Your task to perform on an android device: Empty the shopping cart on amazon. Add logitech g903 to the cart on amazon, then select checkout. Image 0: 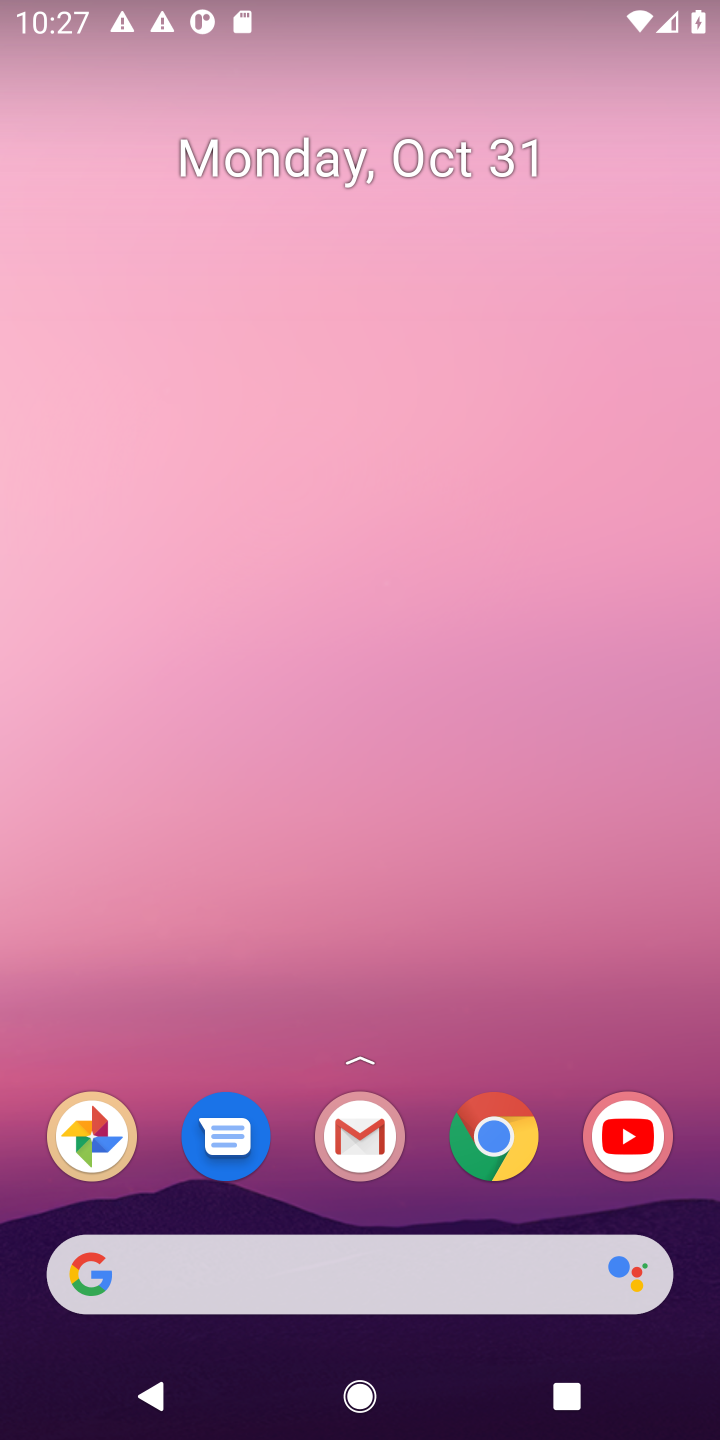
Step 0: press home button
Your task to perform on an android device: Empty the shopping cart on amazon. Add logitech g903 to the cart on amazon, then select checkout. Image 1: 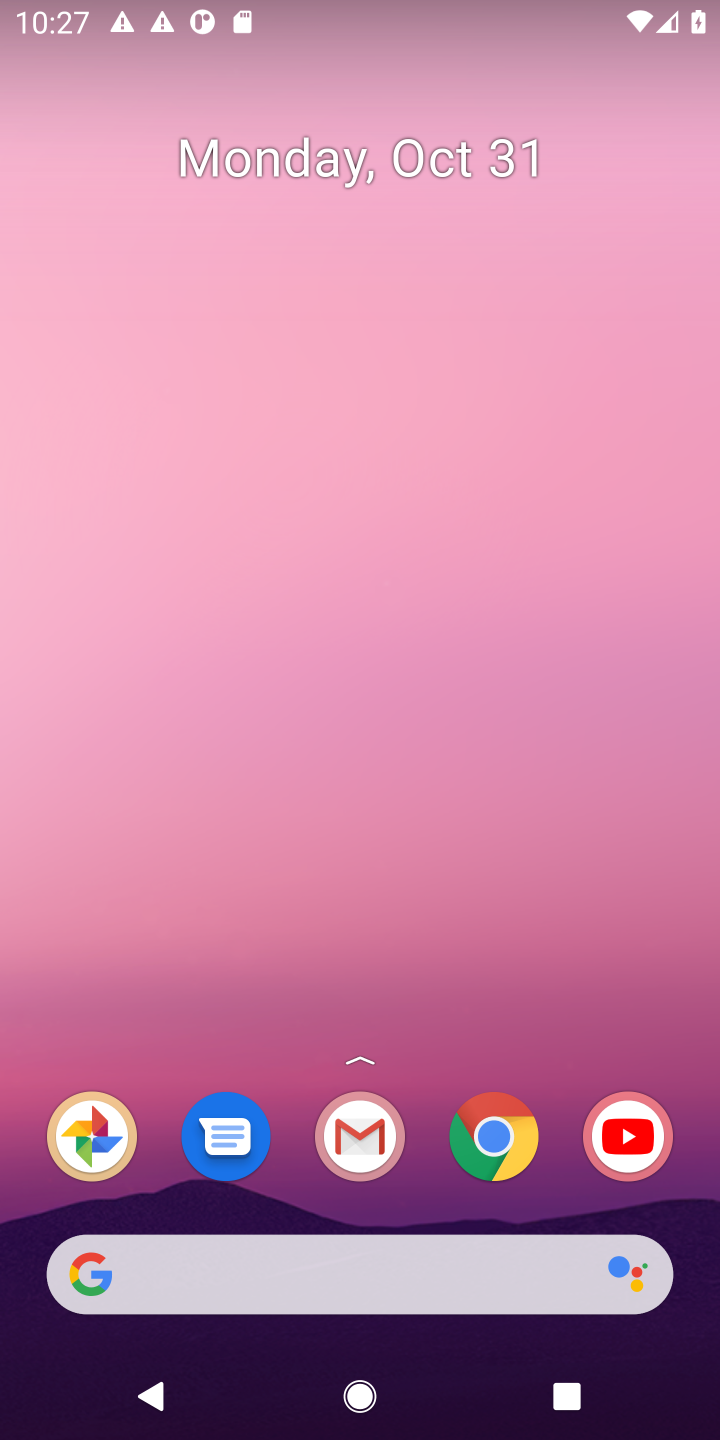
Step 1: click (146, 1273)
Your task to perform on an android device: Empty the shopping cart on amazon. Add logitech g903 to the cart on amazon, then select checkout. Image 2: 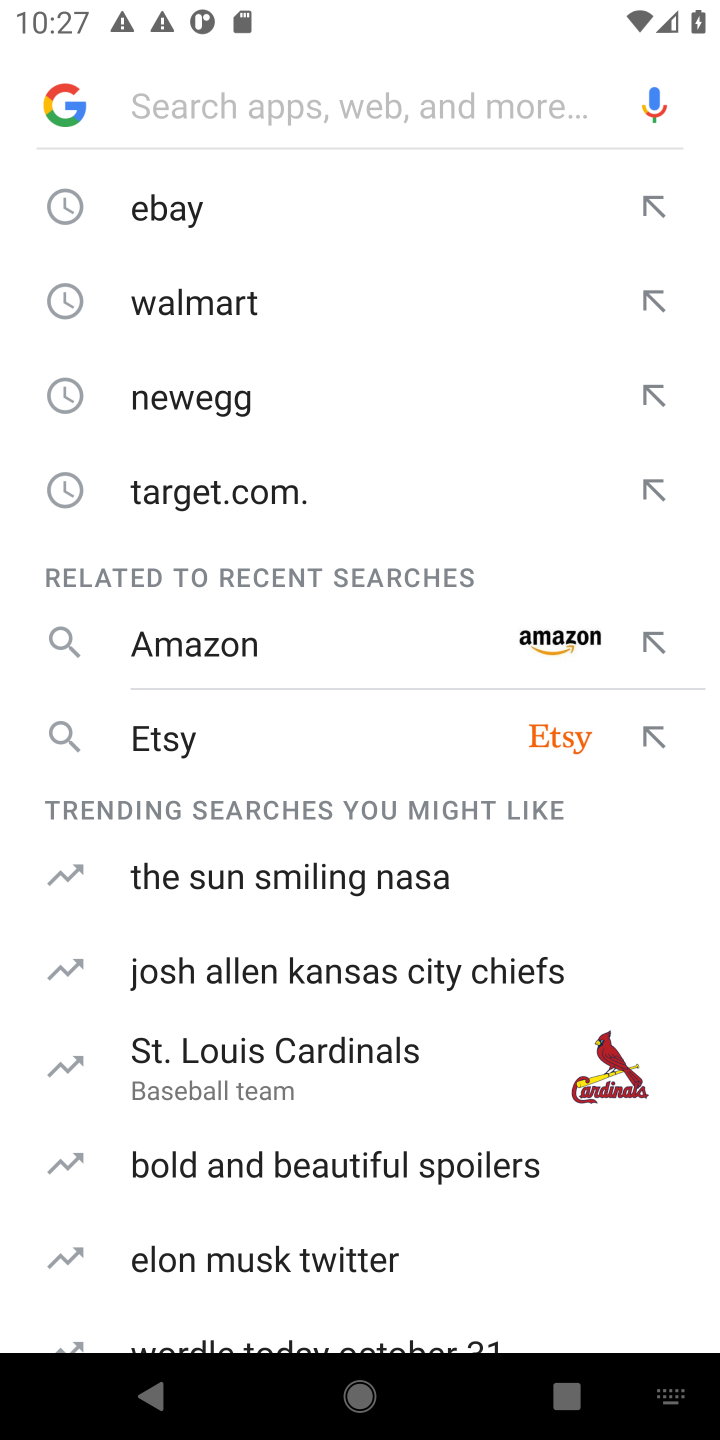
Step 2: type " amazon"
Your task to perform on an android device: Empty the shopping cart on amazon. Add logitech g903 to the cart on amazon, then select checkout. Image 3: 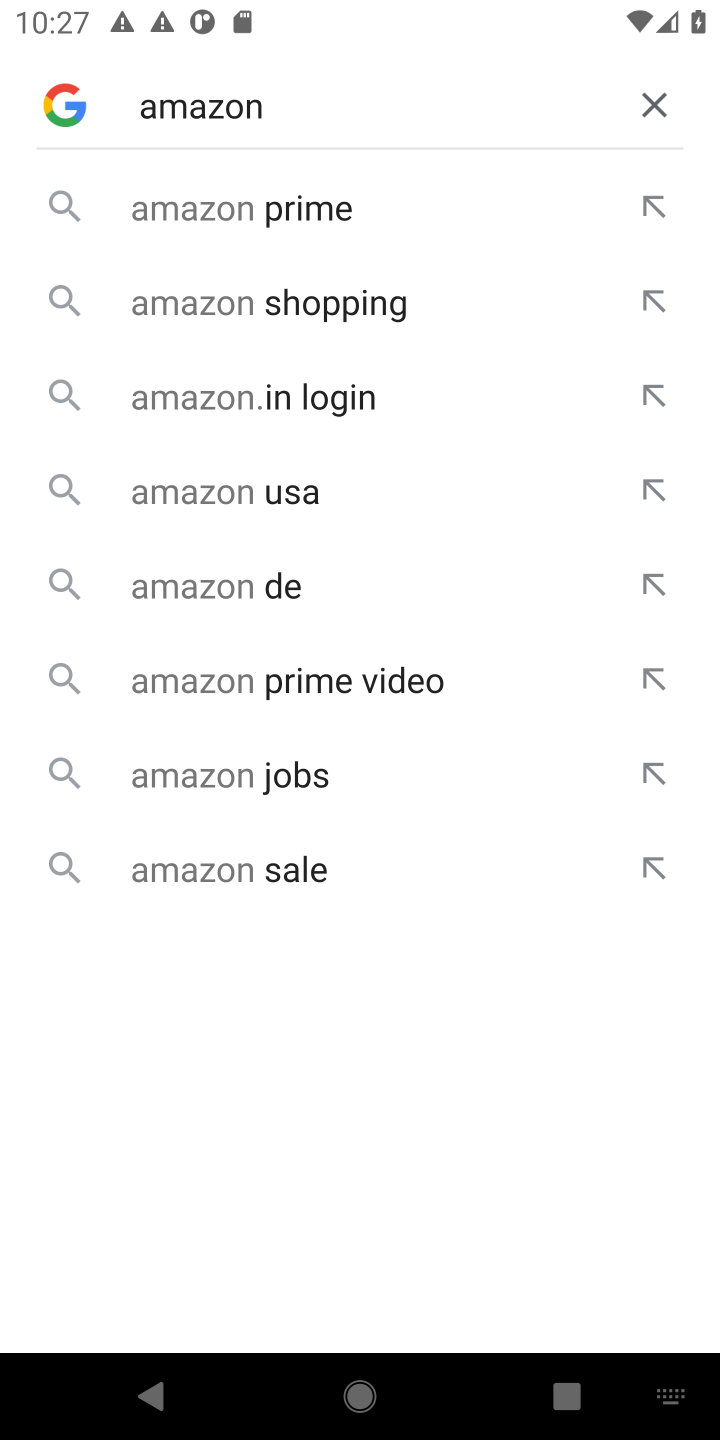
Step 3: press enter
Your task to perform on an android device: Empty the shopping cart on amazon. Add logitech g903 to the cart on amazon, then select checkout. Image 4: 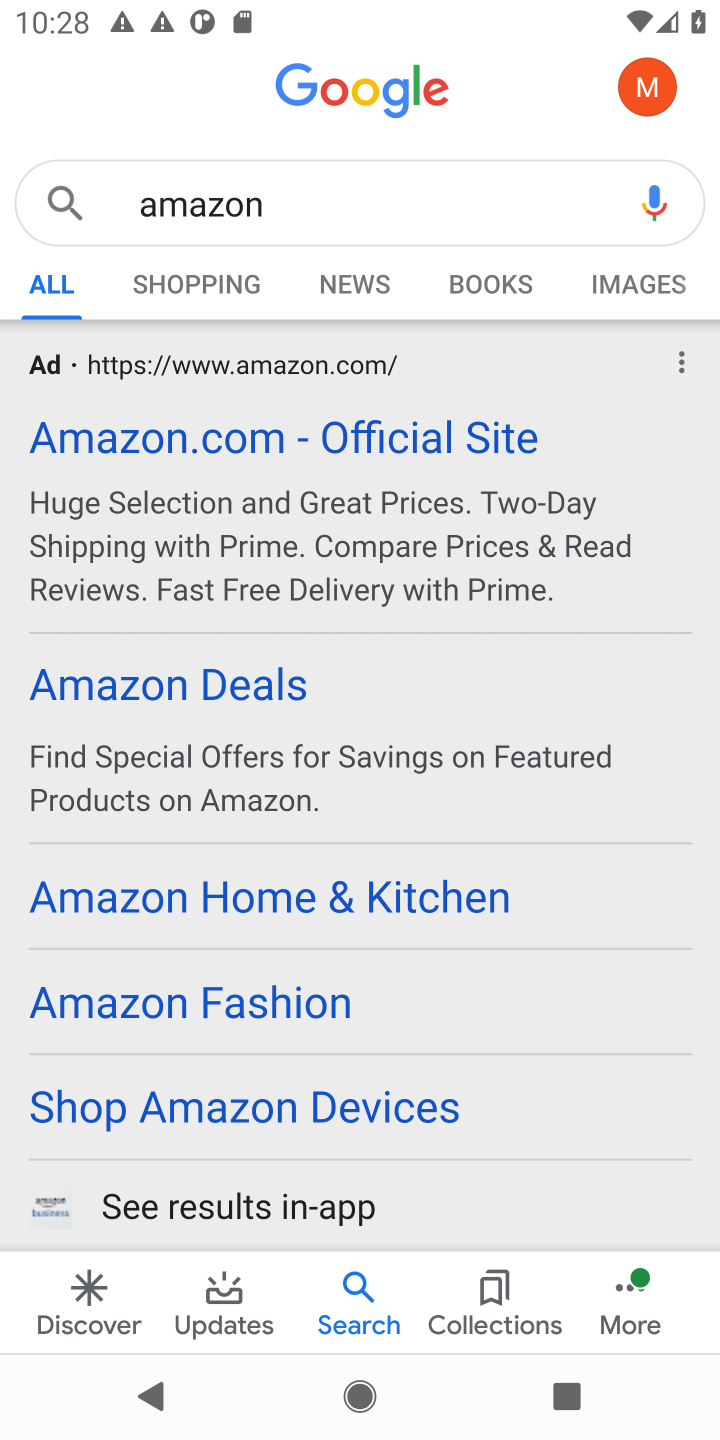
Step 4: click (266, 436)
Your task to perform on an android device: Empty the shopping cart on amazon. Add logitech g903 to the cart on amazon, then select checkout. Image 5: 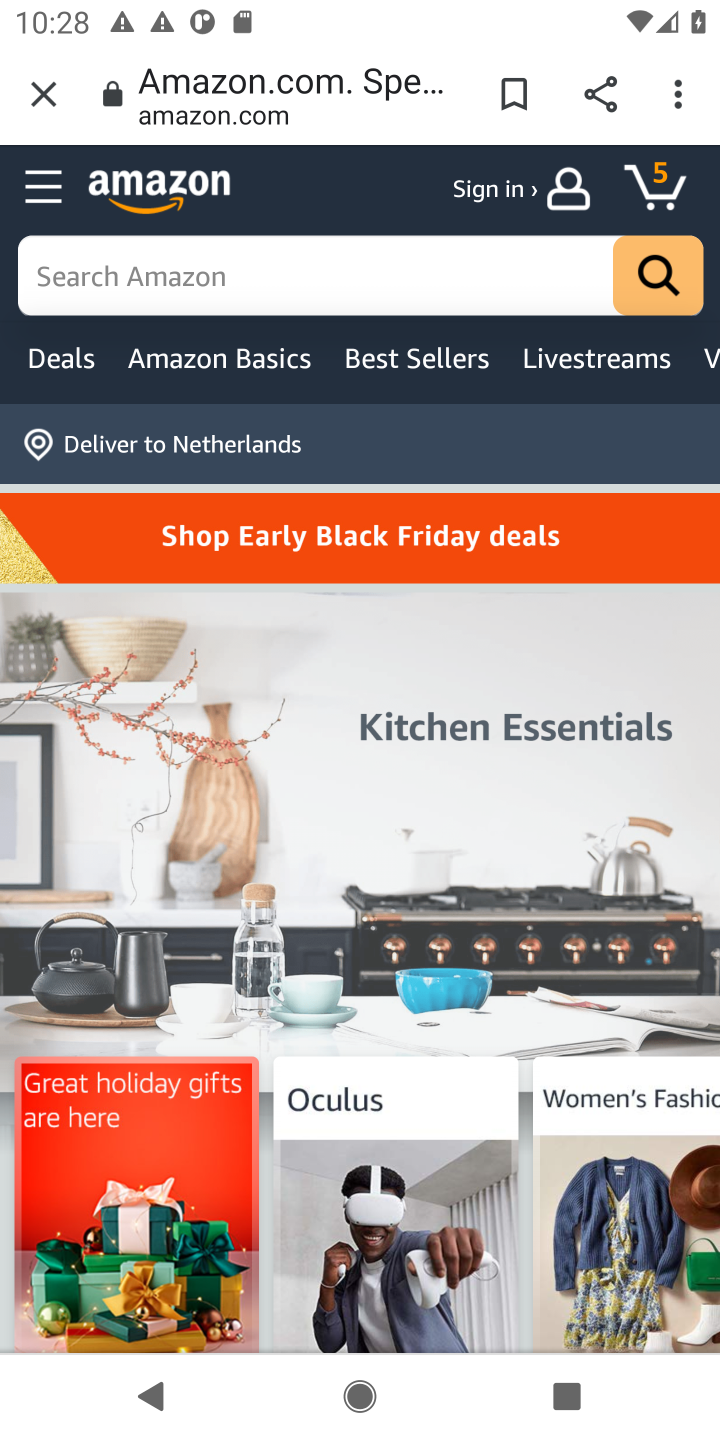
Step 5: click (80, 267)
Your task to perform on an android device: Empty the shopping cart on amazon. Add logitech g903 to the cart on amazon, then select checkout. Image 6: 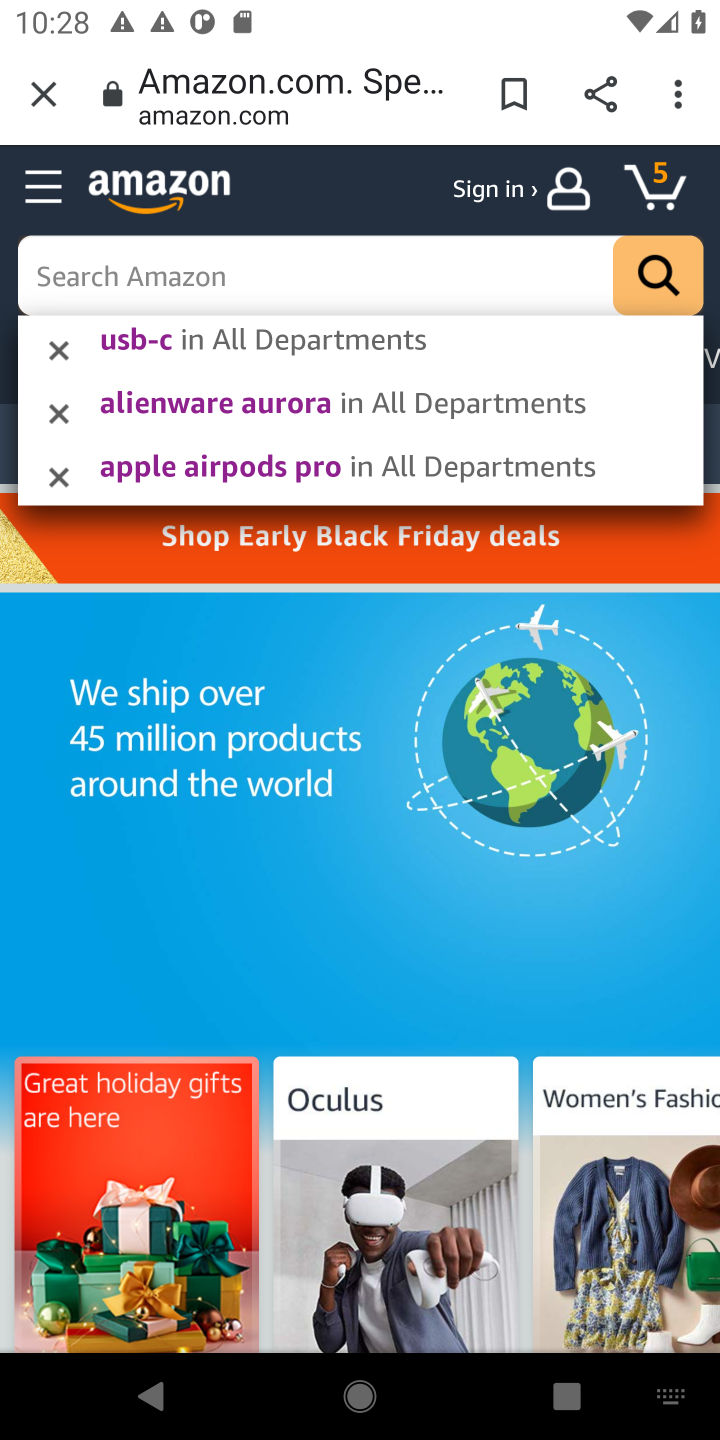
Step 6: type "logitech g903"
Your task to perform on an android device: Empty the shopping cart on amazon. Add logitech g903 to the cart on amazon, then select checkout. Image 7: 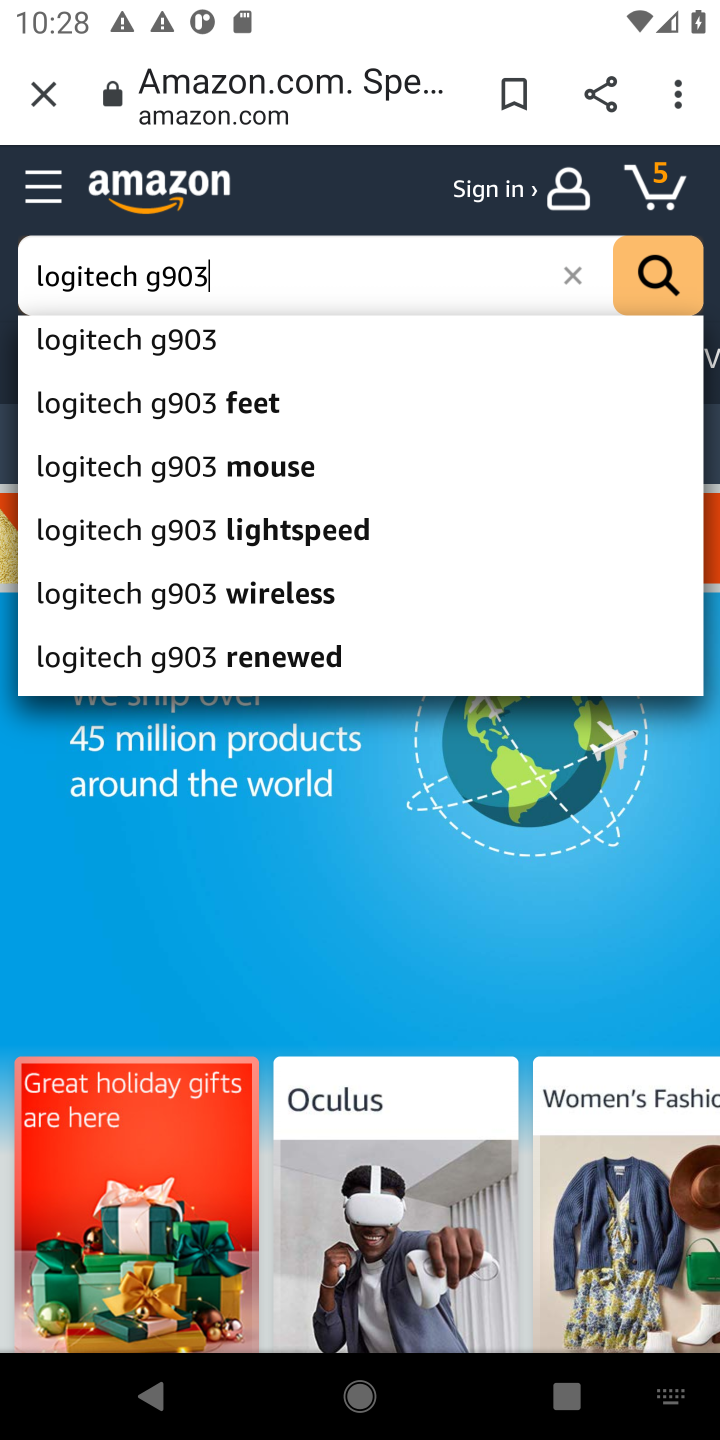
Step 7: click (645, 264)
Your task to perform on an android device: Empty the shopping cart on amazon. Add logitech g903 to the cart on amazon, then select checkout. Image 8: 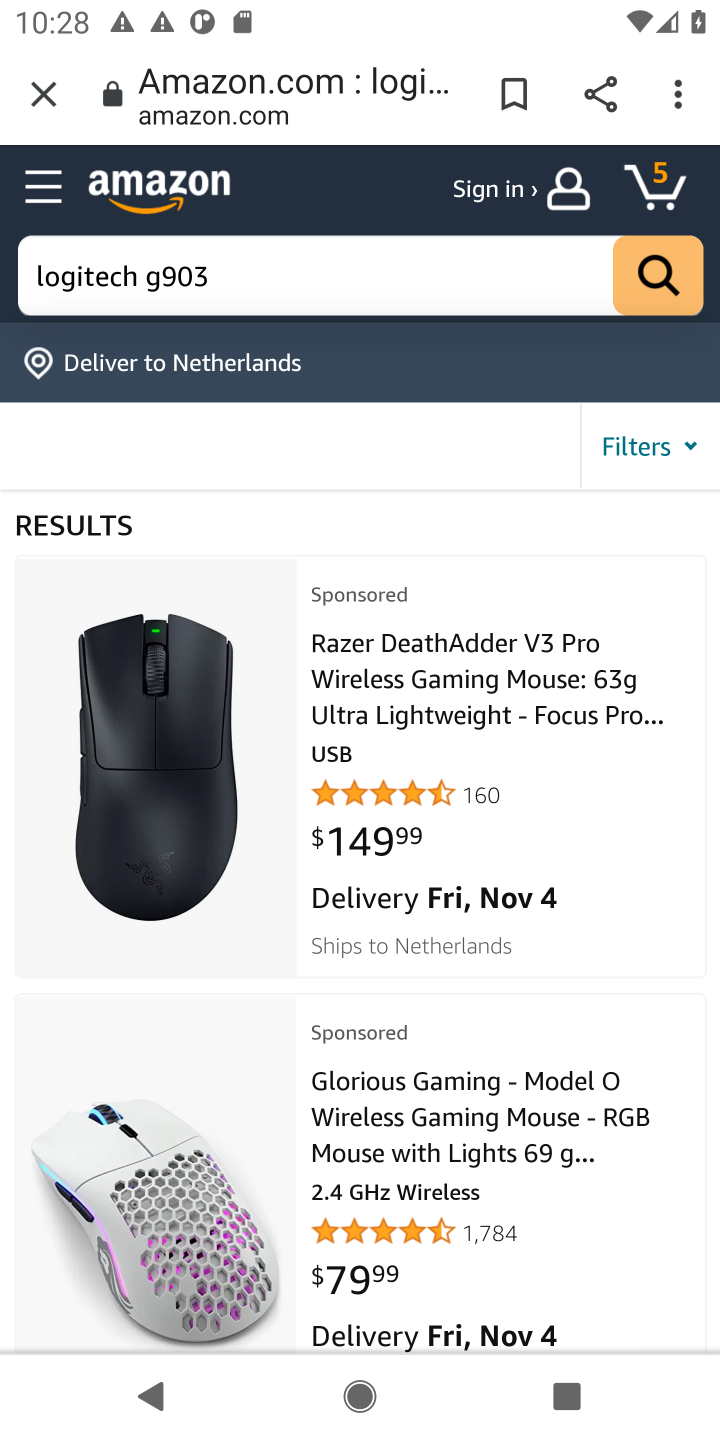
Step 8: drag from (556, 1118) to (547, 744)
Your task to perform on an android device: Empty the shopping cart on amazon. Add logitech g903 to the cart on amazon, then select checkout. Image 9: 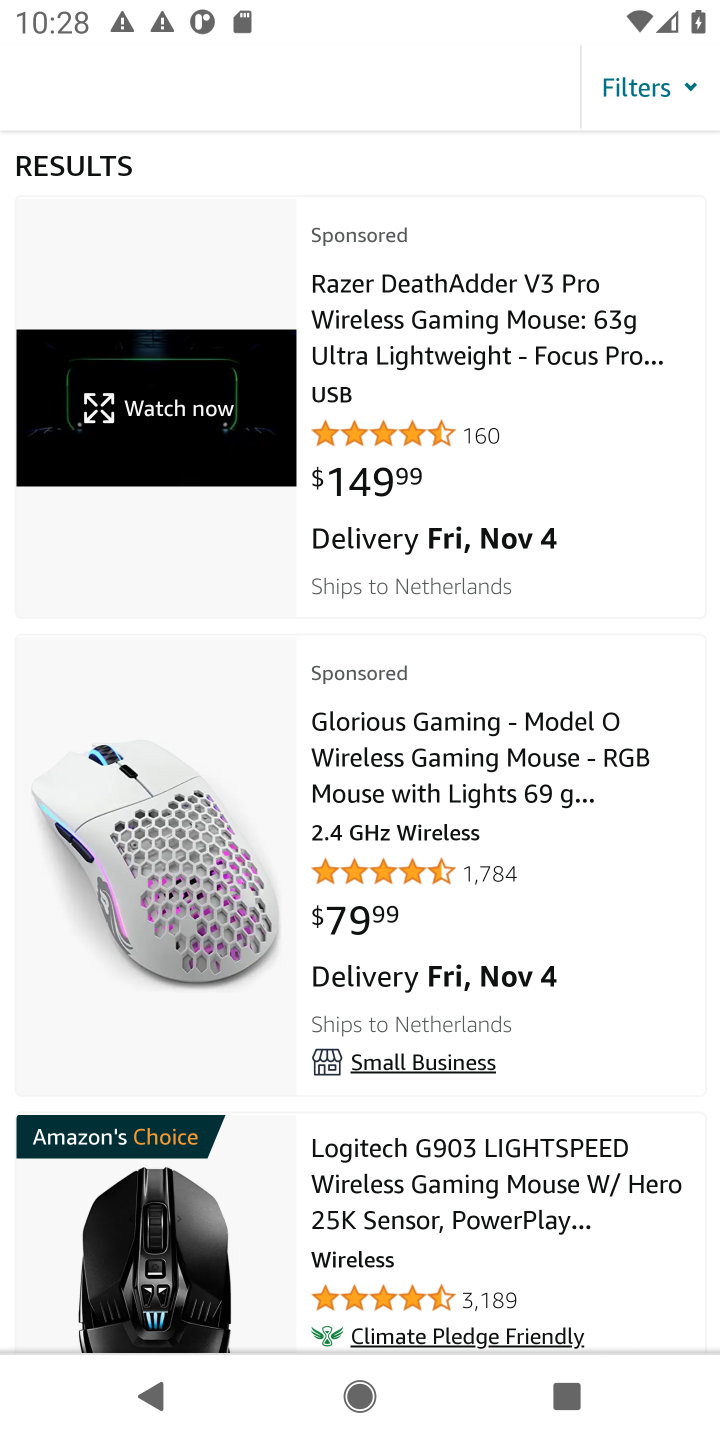
Step 9: drag from (474, 1131) to (503, 704)
Your task to perform on an android device: Empty the shopping cart on amazon. Add logitech g903 to the cart on amazon, then select checkout. Image 10: 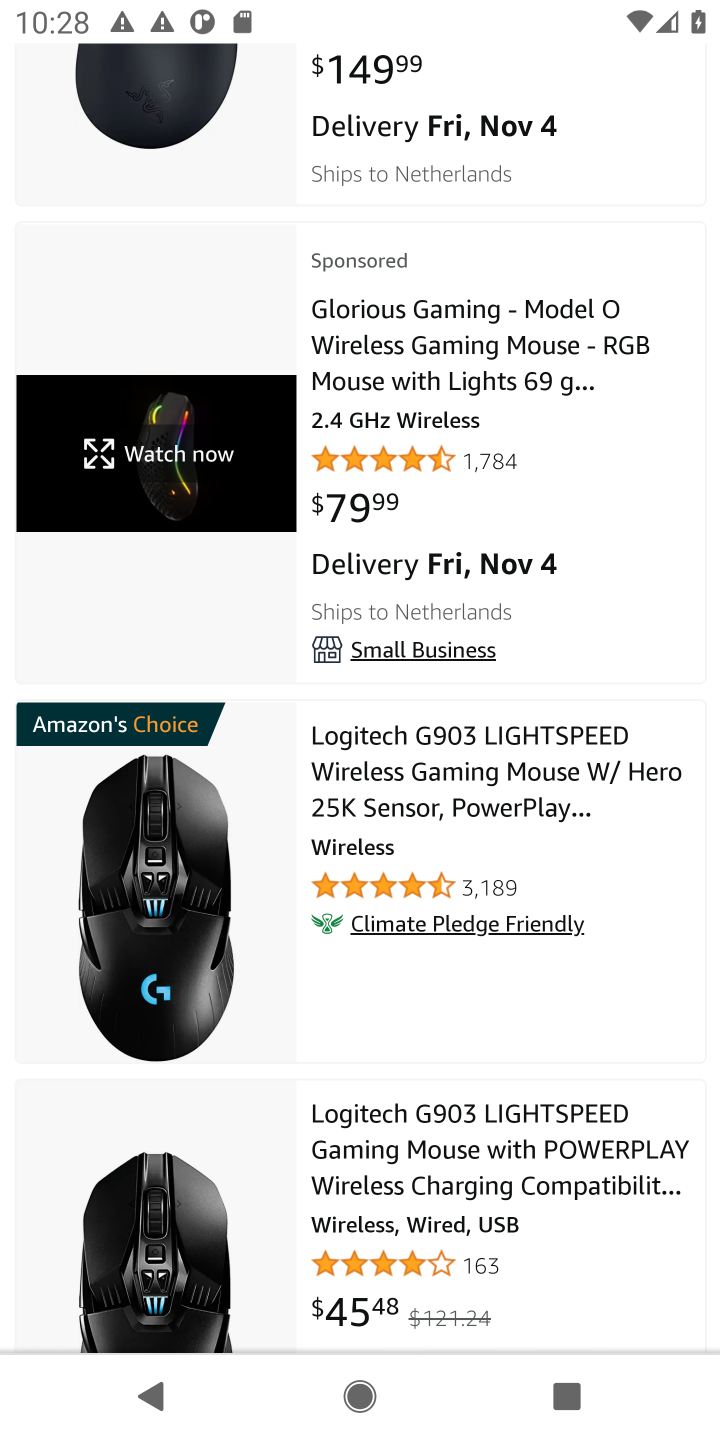
Step 10: click (453, 781)
Your task to perform on an android device: Empty the shopping cart on amazon. Add logitech g903 to the cart on amazon, then select checkout. Image 11: 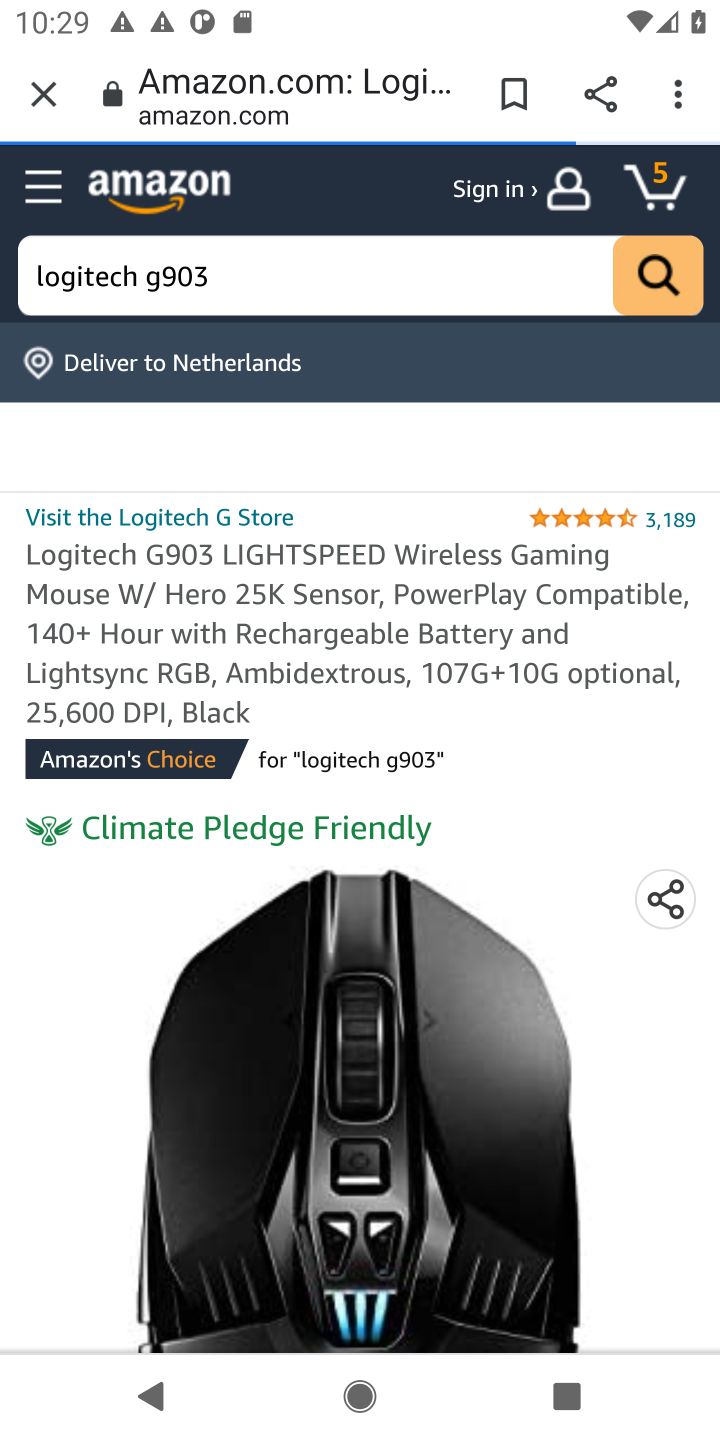
Step 11: drag from (478, 915) to (508, 605)
Your task to perform on an android device: Empty the shopping cart on amazon. Add logitech g903 to the cart on amazon, then select checkout. Image 12: 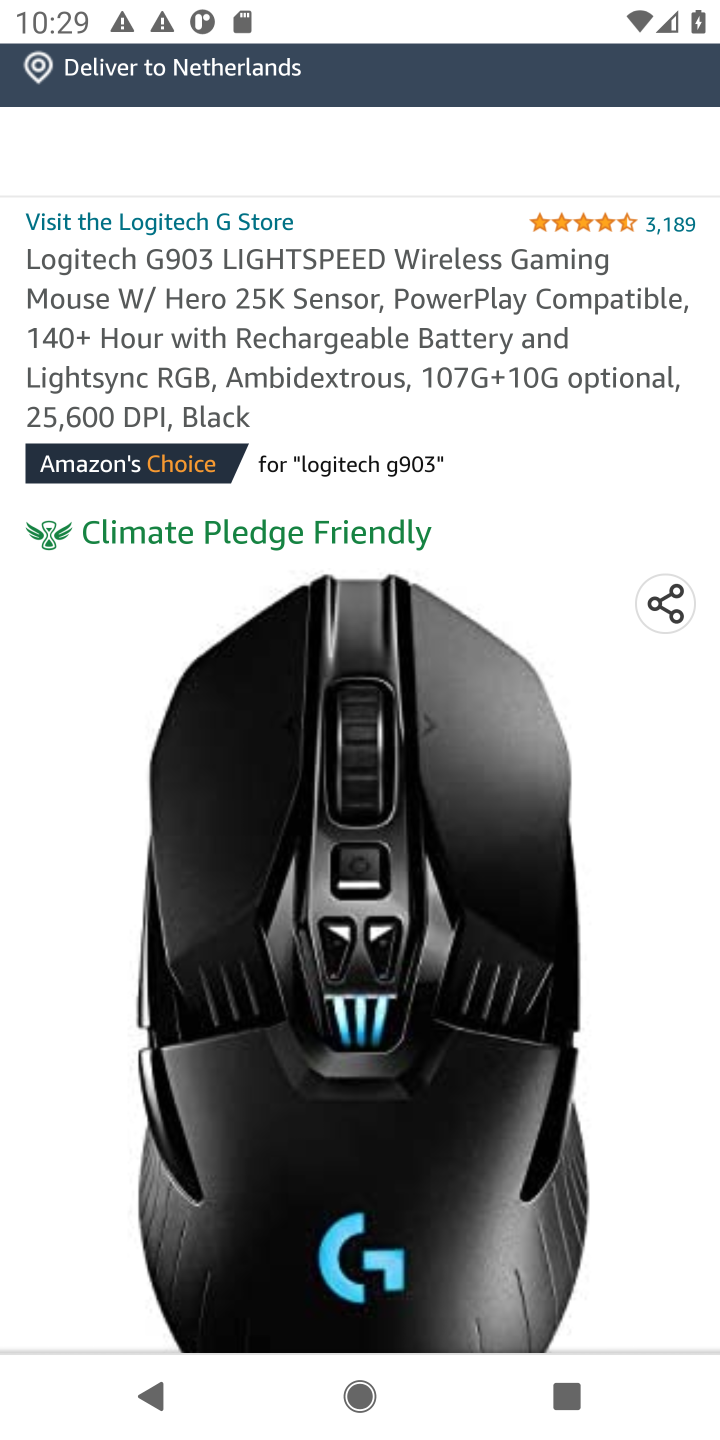
Step 12: drag from (371, 986) to (419, 463)
Your task to perform on an android device: Empty the shopping cart on amazon. Add logitech g903 to the cart on amazon, then select checkout. Image 13: 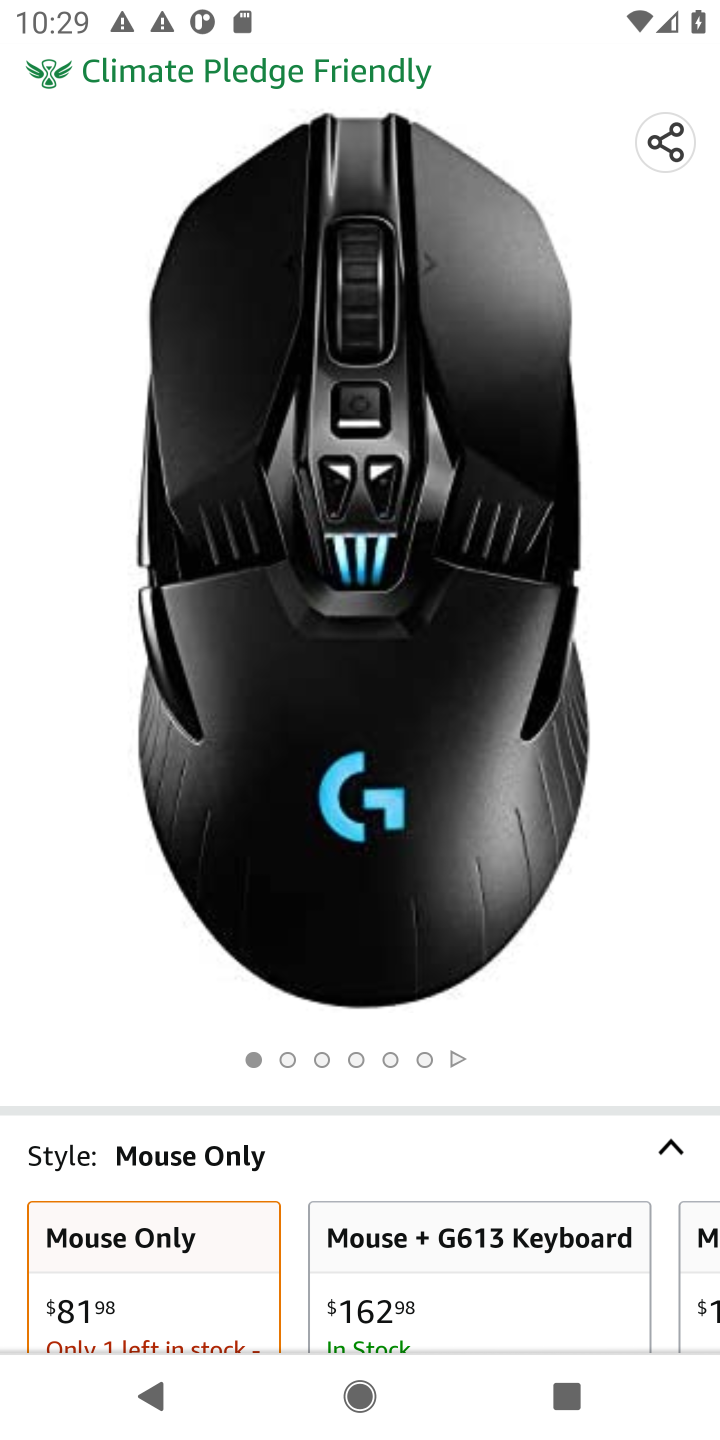
Step 13: drag from (414, 1094) to (473, 409)
Your task to perform on an android device: Empty the shopping cart on amazon. Add logitech g903 to the cart on amazon, then select checkout. Image 14: 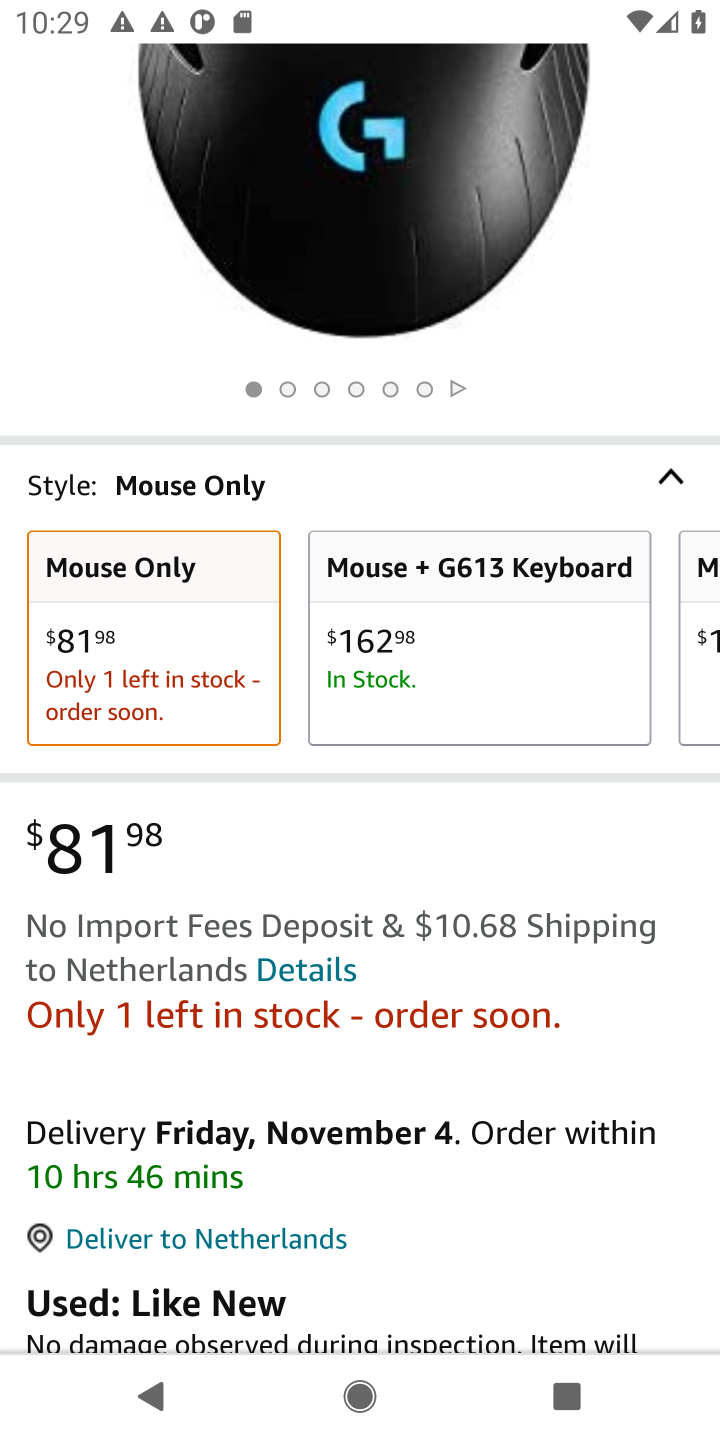
Step 14: drag from (449, 1063) to (478, 455)
Your task to perform on an android device: Empty the shopping cart on amazon. Add logitech g903 to the cart on amazon, then select checkout. Image 15: 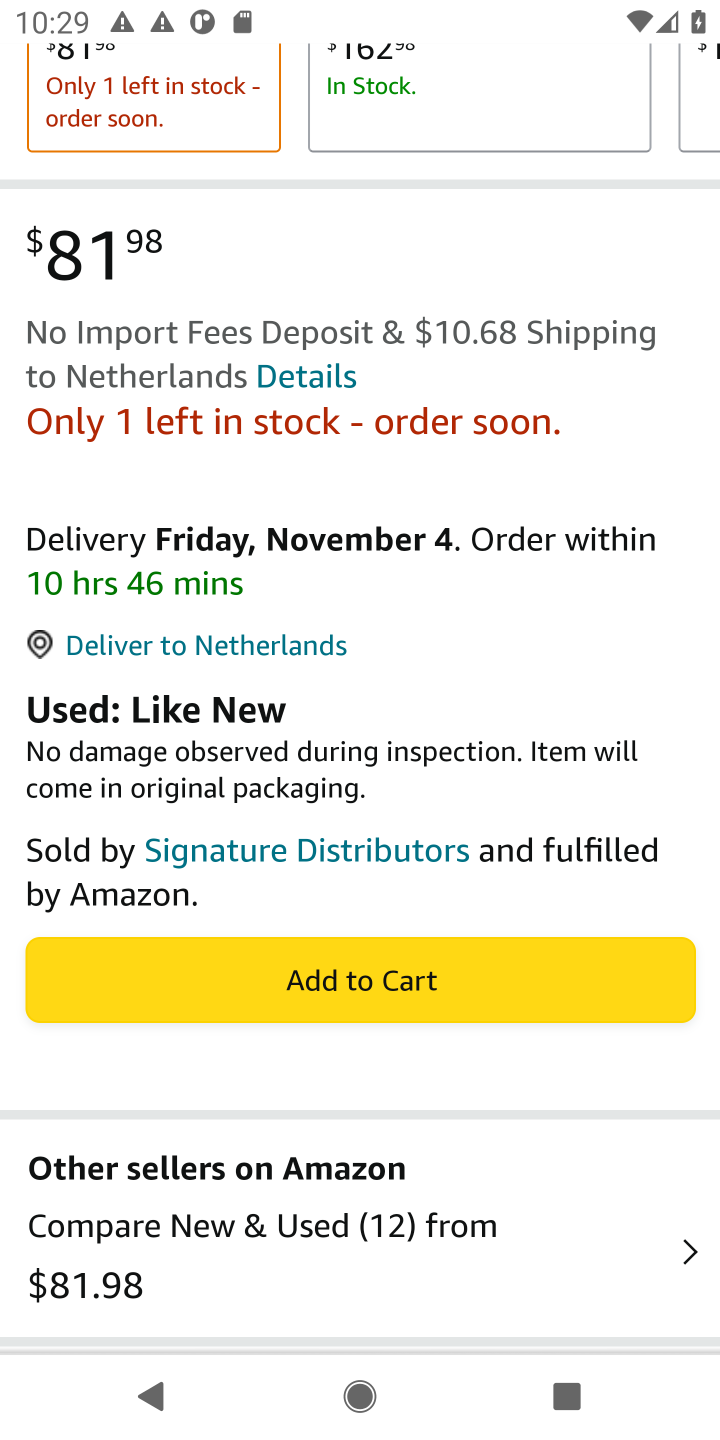
Step 15: click (347, 999)
Your task to perform on an android device: Empty the shopping cart on amazon. Add logitech g903 to the cart on amazon, then select checkout. Image 16: 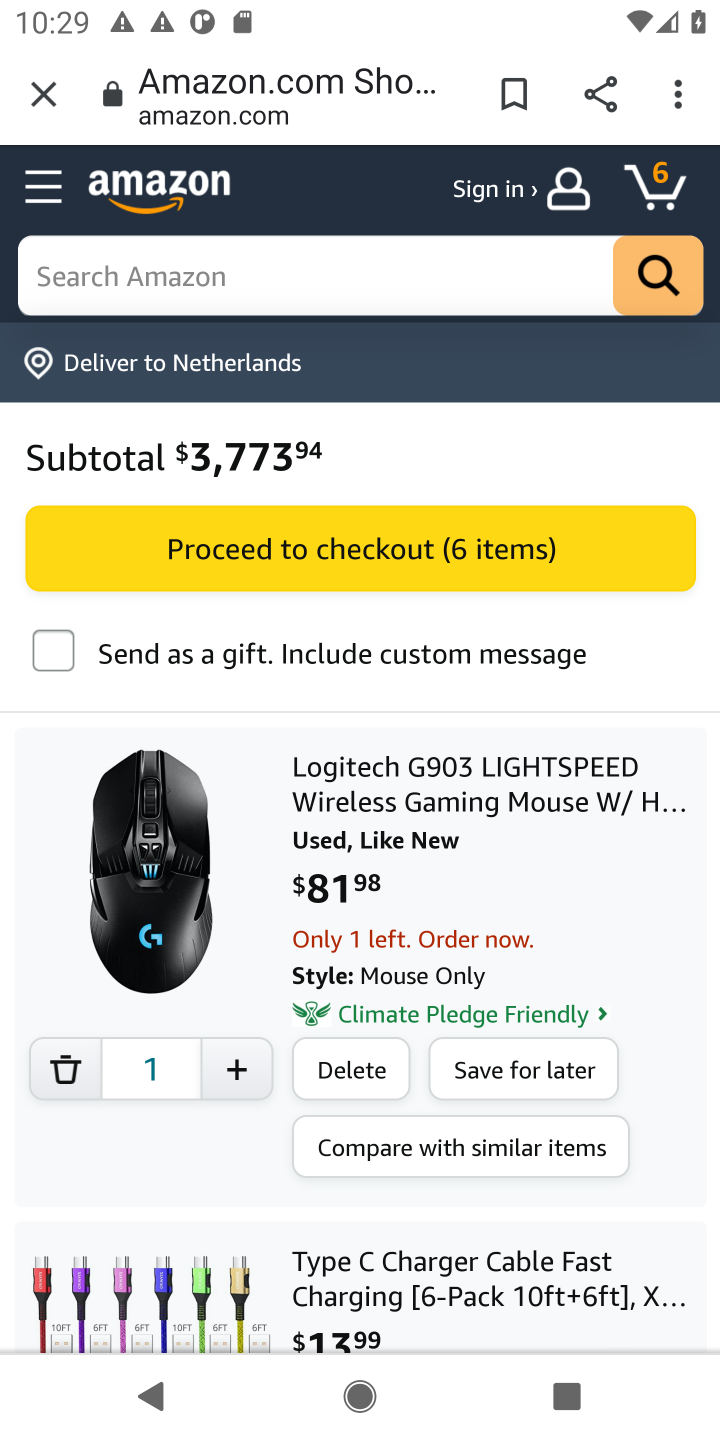
Step 16: click (394, 548)
Your task to perform on an android device: Empty the shopping cart on amazon. Add logitech g903 to the cart on amazon, then select checkout. Image 17: 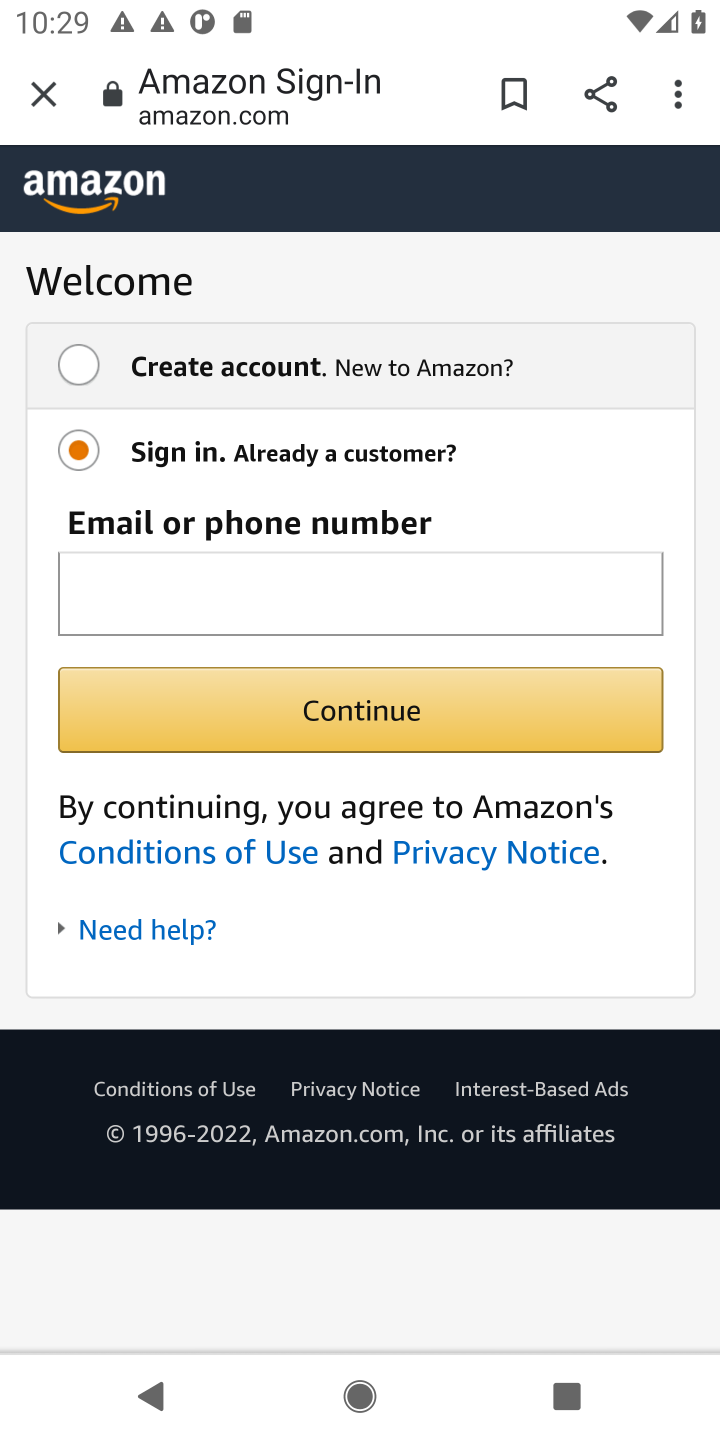
Step 17: task complete